Your task to perform on an android device: Search for Italian restaurants on Maps Image 0: 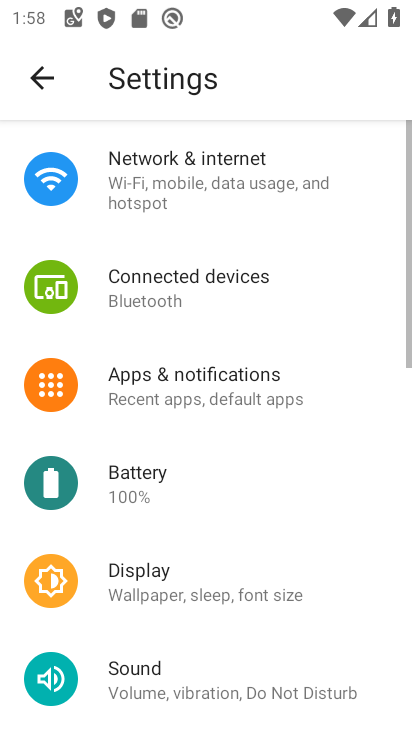
Step 0: press home button
Your task to perform on an android device: Search for Italian restaurants on Maps Image 1: 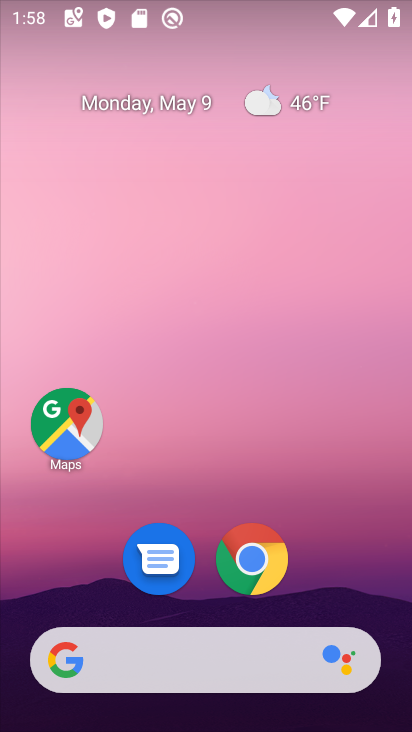
Step 1: drag from (310, 572) to (325, 110)
Your task to perform on an android device: Search for Italian restaurants on Maps Image 2: 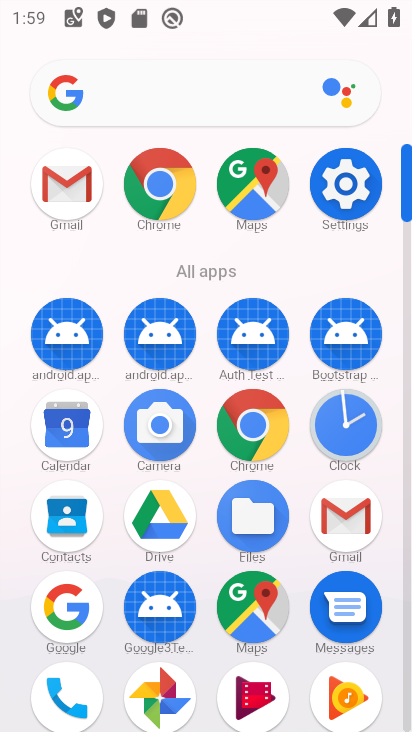
Step 2: click (261, 196)
Your task to perform on an android device: Search for Italian restaurants on Maps Image 3: 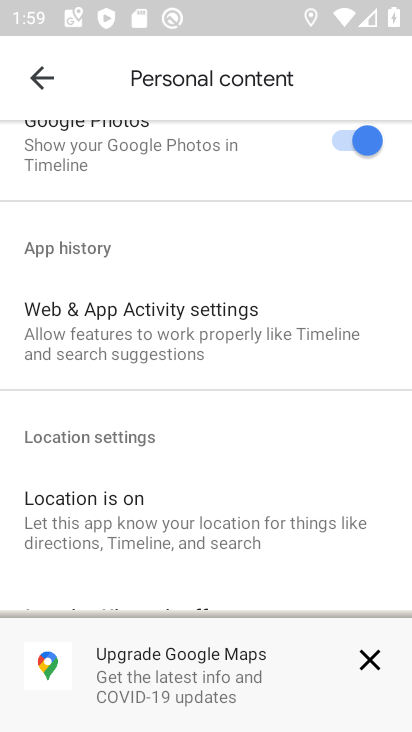
Step 3: click (57, 83)
Your task to perform on an android device: Search for Italian restaurants on Maps Image 4: 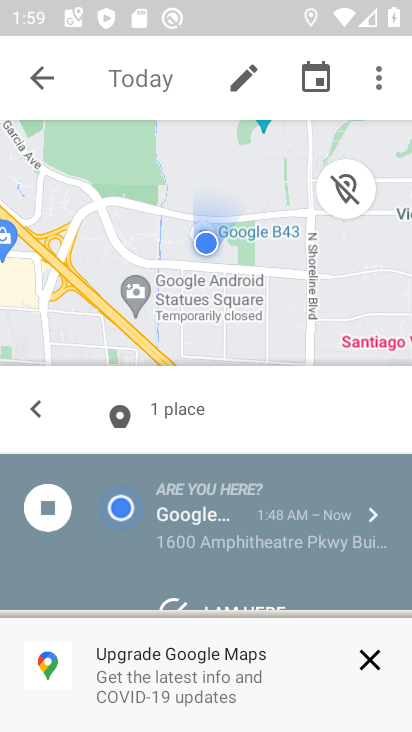
Step 4: click (168, 79)
Your task to perform on an android device: Search for Italian restaurants on Maps Image 5: 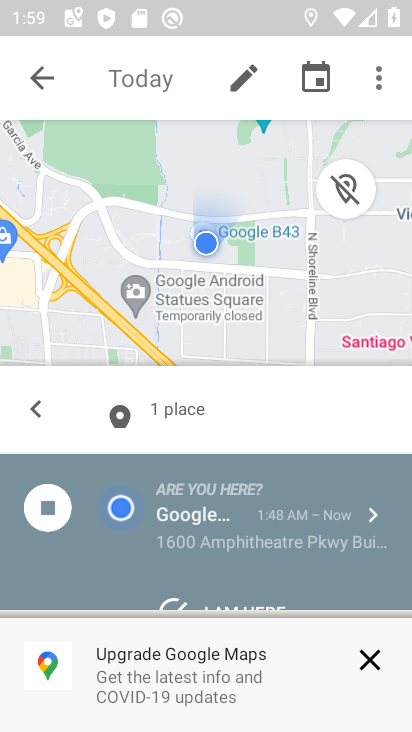
Step 5: click (34, 87)
Your task to perform on an android device: Search for Italian restaurants on Maps Image 6: 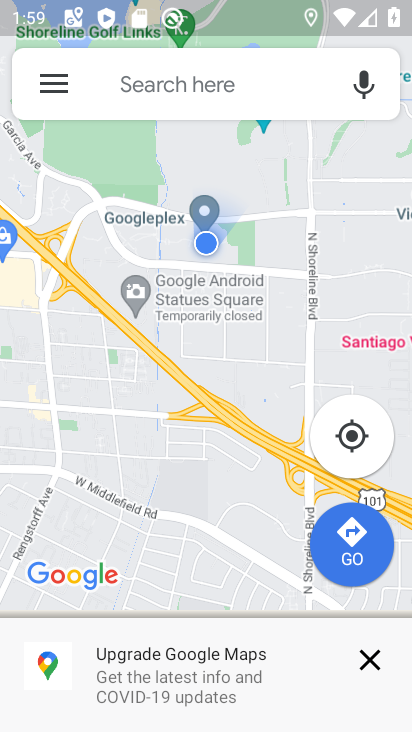
Step 6: click (183, 92)
Your task to perform on an android device: Search for Italian restaurants on Maps Image 7: 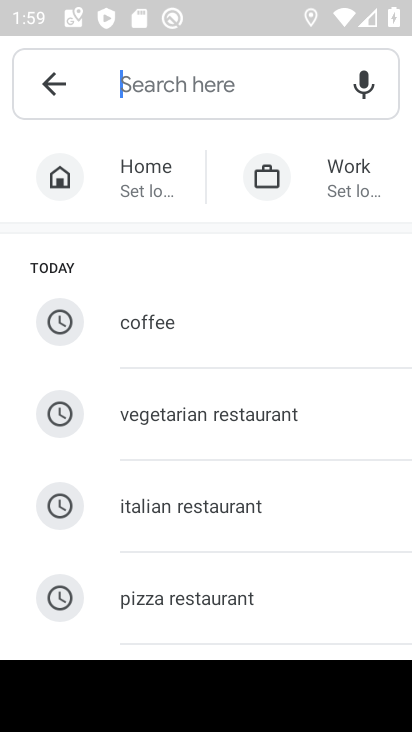
Step 7: click (226, 504)
Your task to perform on an android device: Search for Italian restaurants on Maps Image 8: 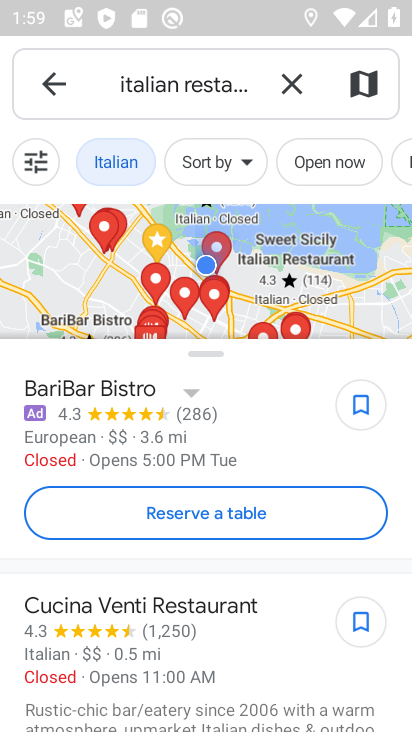
Step 8: task complete